Your task to perform on an android device: turn off sleep mode Image 0: 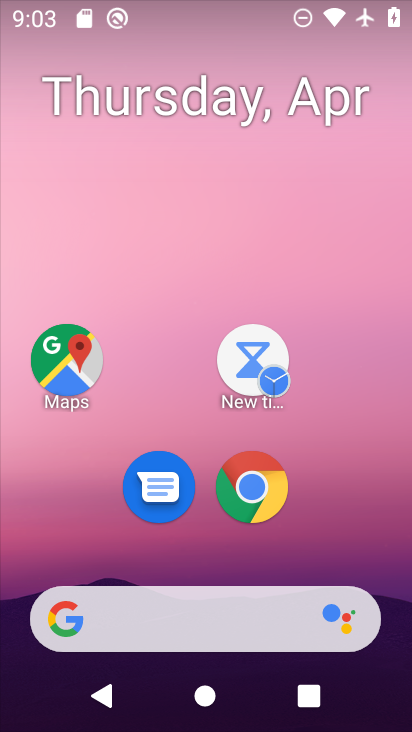
Step 0: drag from (317, 447) to (300, 155)
Your task to perform on an android device: turn off sleep mode Image 1: 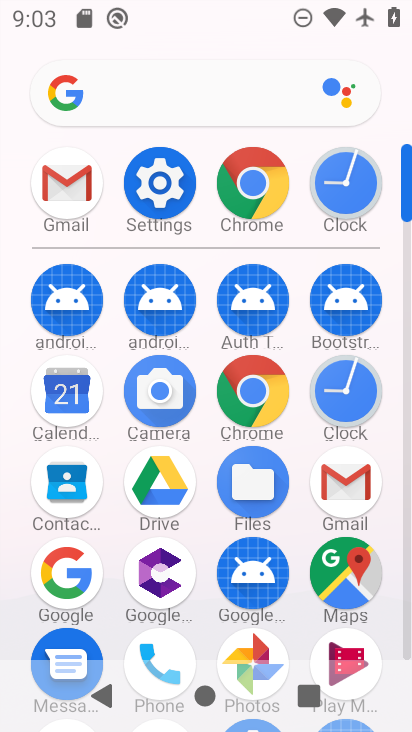
Step 1: click (162, 171)
Your task to perform on an android device: turn off sleep mode Image 2: 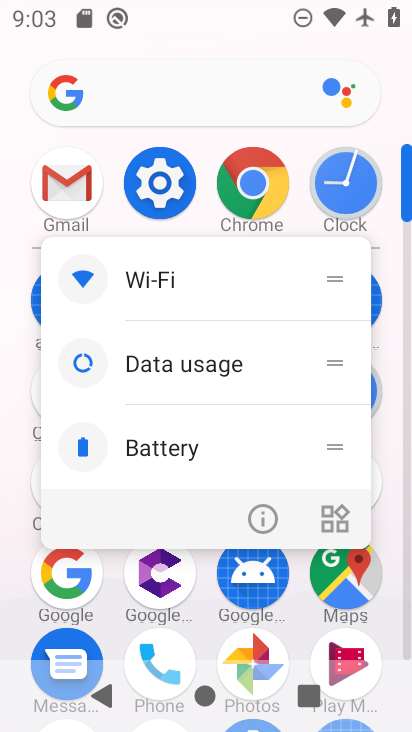
Step 2: click (166, 171)
Your task to perform on an android device: turn off sleep mode Image 3: 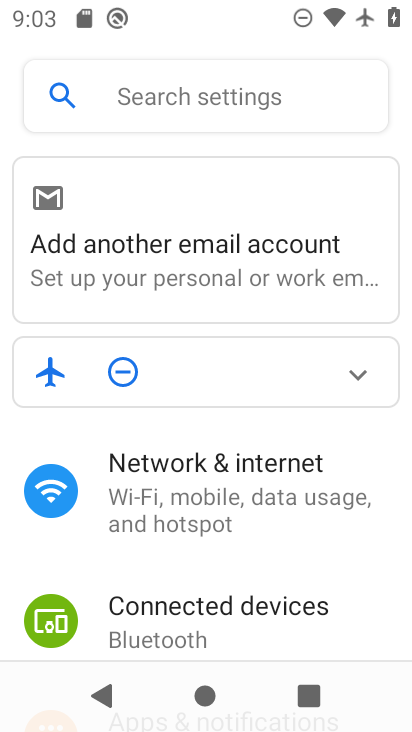
Step 3: drag from (323, 535) to (311, 185)
Your task to perform on an android device: turn off sleep mode Image 4: 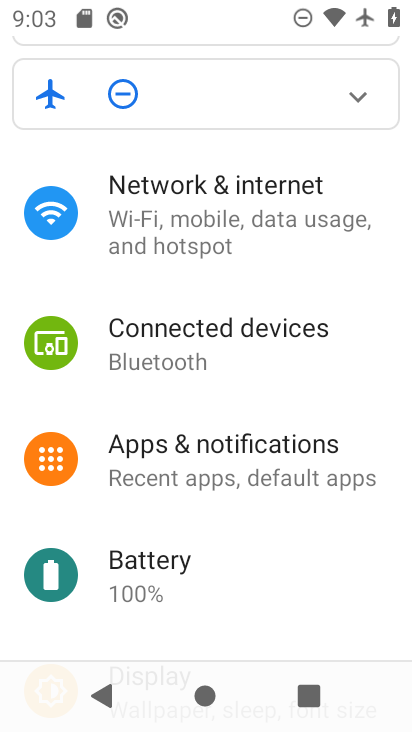
Step 4: drag from (199, 576) to (207, 275)
Your task to perform on an android device: turn off sleep mode Image 5: 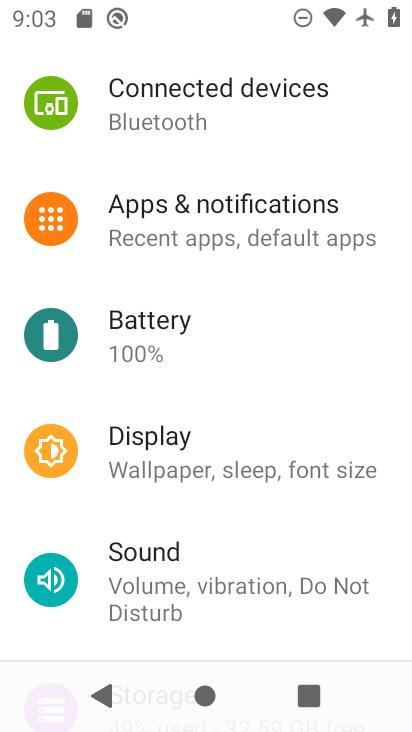
Step 5: click (198, 458)
Your task to perform on an android device: turn off sleep mode Image 6: 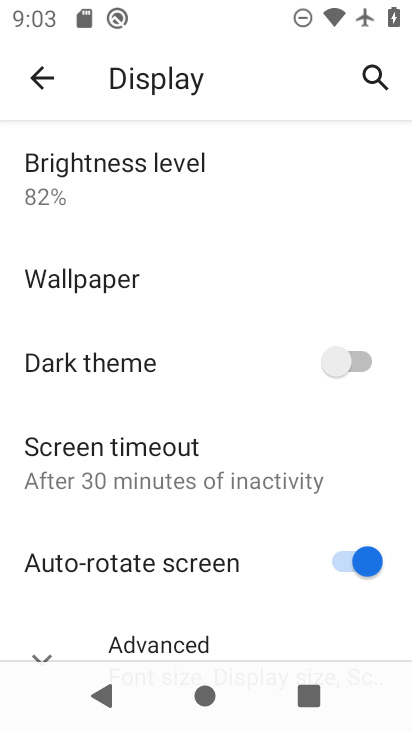
Step 6: drag from (142, 601) to (180, 295)
Your task to perform on an android device: turn off sleep mode Image 7: 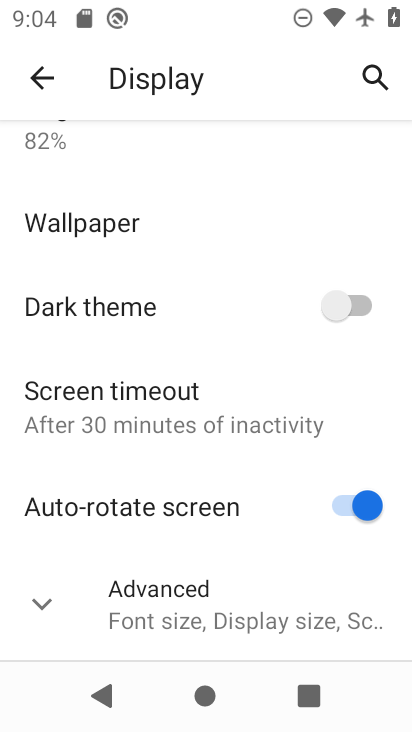
Step 7: click (139, 611)
Your task to perform on an android device: turn off sleep mode Image 8: 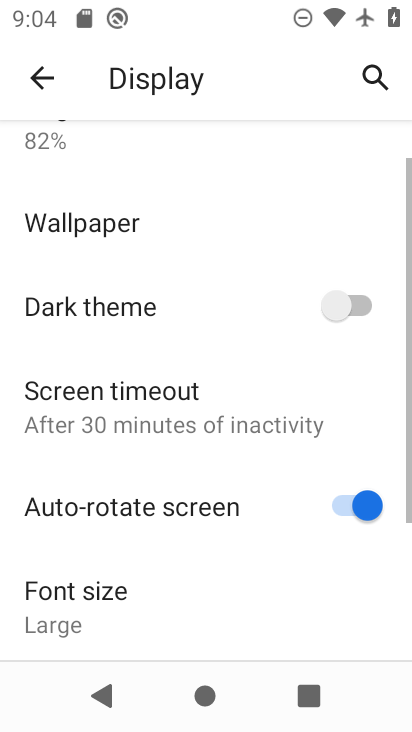
Step 8: task complete